Your task to perform on an android device: What's on my calendar tomorrow? Image 0: 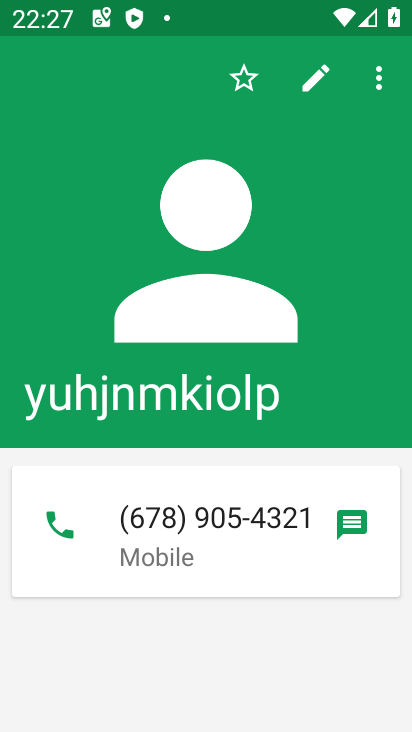
Step 0: press home button
Your task to perform on an android device: What's on my calendar tomorrow? Image 1: 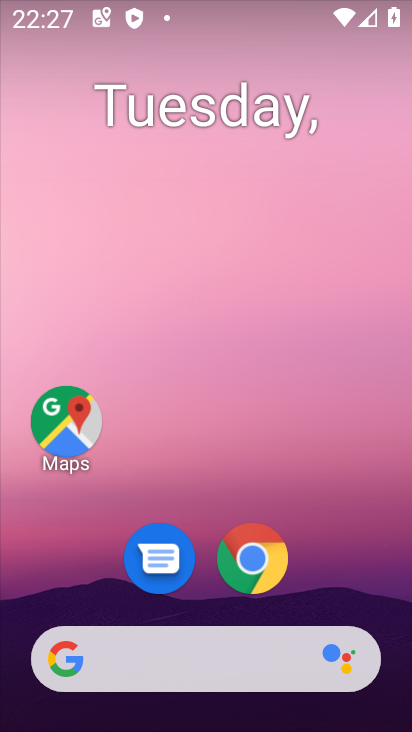
Step 1: drag from (323, 617) to (316, 5)
Your task to perform on an android device: What's on my calendar tomorrow? Image 2: 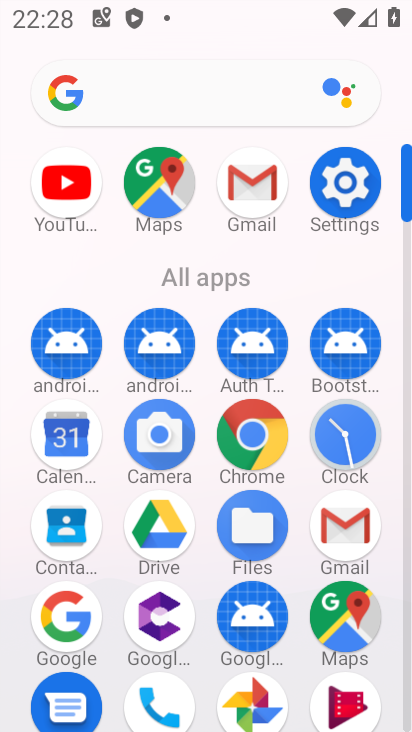
Step 2: click (70, 436)
Your task to perform on an android device: What's on my calendar tomorrow? Image 3: 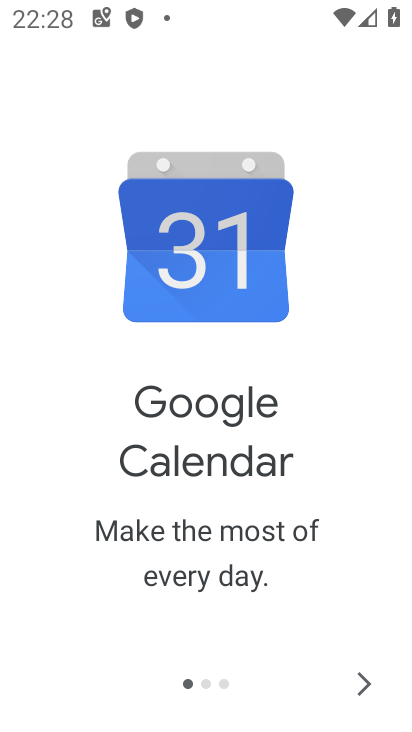
Step 3: click (373, 674)
Your task to perform on an android device: What's on my calendar tomorrow? Image 4: 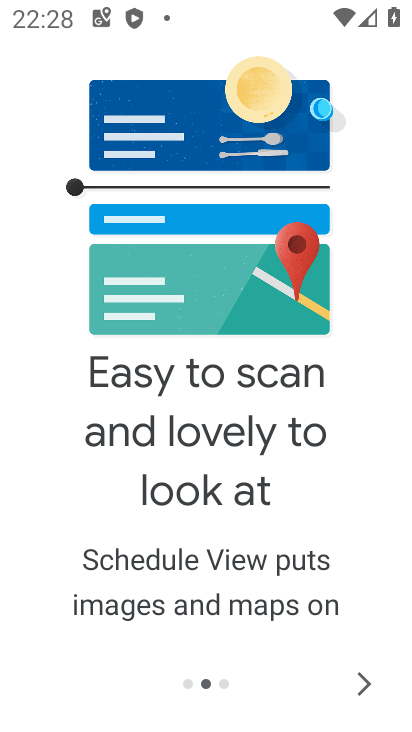
Step 4: click (373, 669)
Your task to perform on an android device: What's on my calendar tomorrow? Image 5: 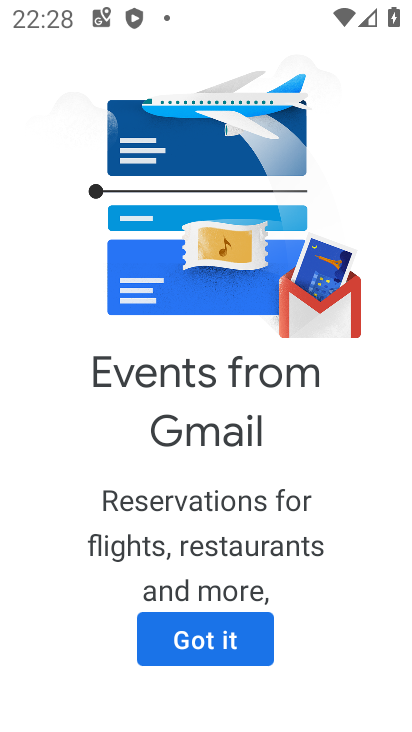
Step 5: click (373, 666)
Your task to perform on an android device: What's on my calendar tomorrow? Image 6: 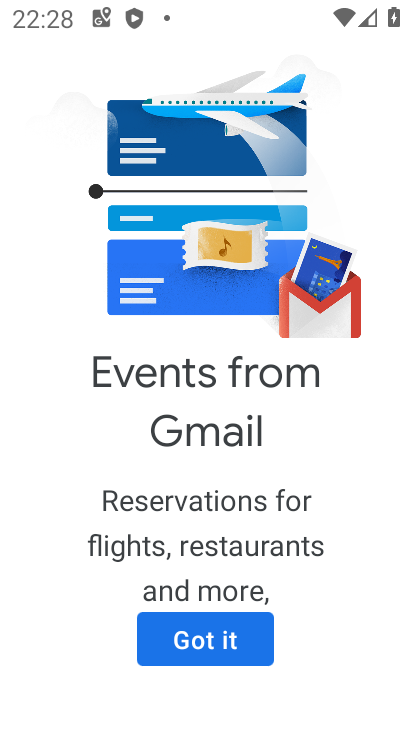
Step 6: click (231, 646)
Your task to perform on an android device: What's on my calendar tomorrow? Image 7: 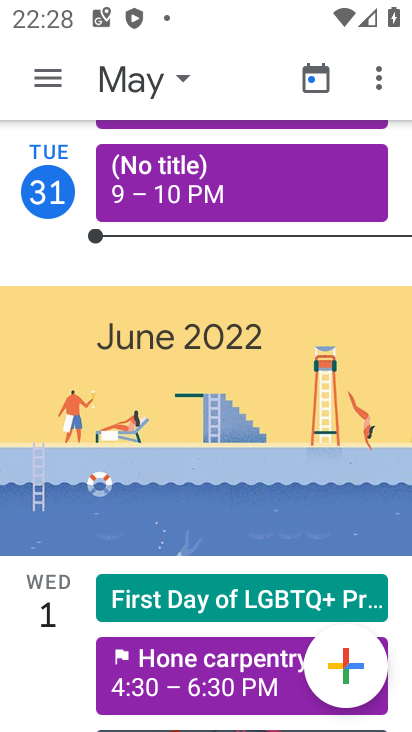
Step 7: click (169, 77)
Your task to perform on an android device: What's on my calendar tomorrow? Image 8: 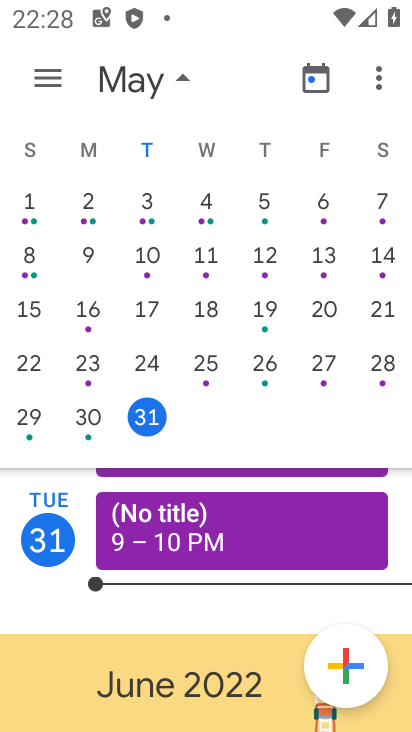
Step 8: task complete